Your task to perform on an android device: Open Reddit.com Image 0: 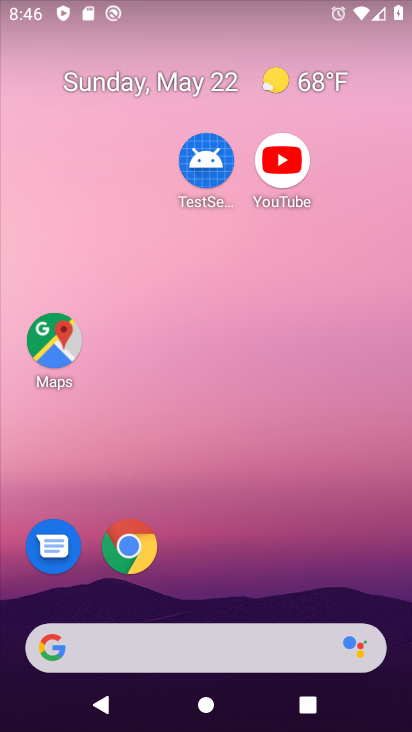
Step 0: drag from (253, 723) to (191, 165)
Your task to perform on an android device: Open Reddit.com Image 1: 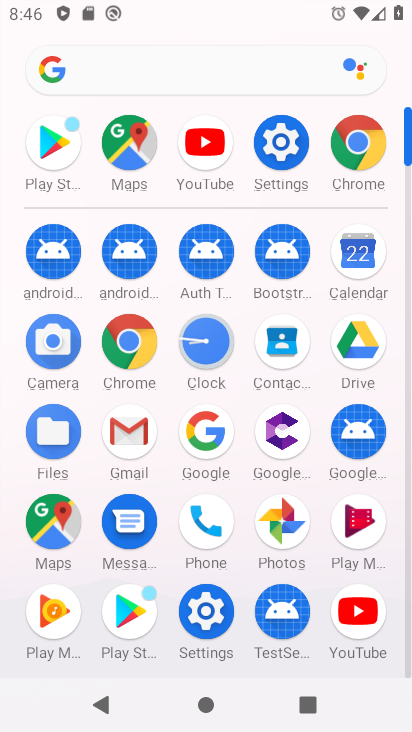
Step 1: click (352, 136)
Your task to perform on an android device: Open Reddit.com Image 2: 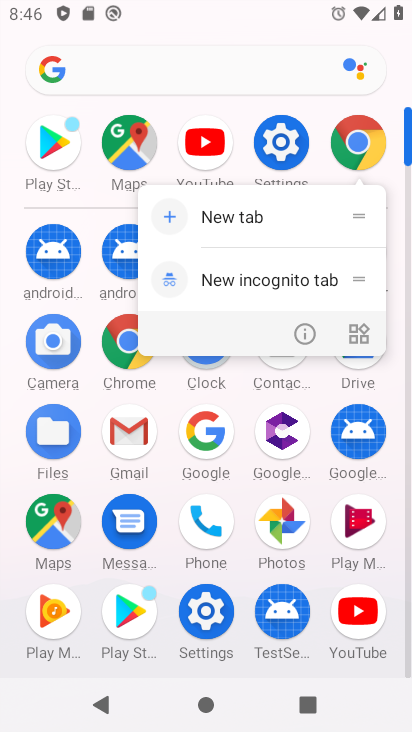
Step 2: click (350, 136)
Your task to perform on an android device: Open Reddit.com Image 3: 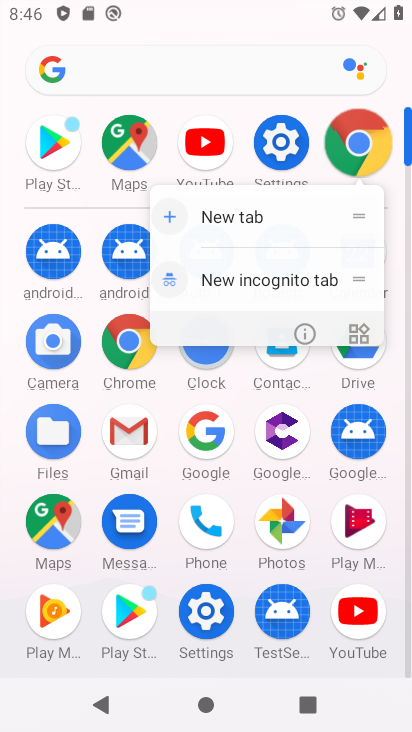
Step 3: click (359, 137)
Your task to perform on an android device: Open Reddit.com Image 4: 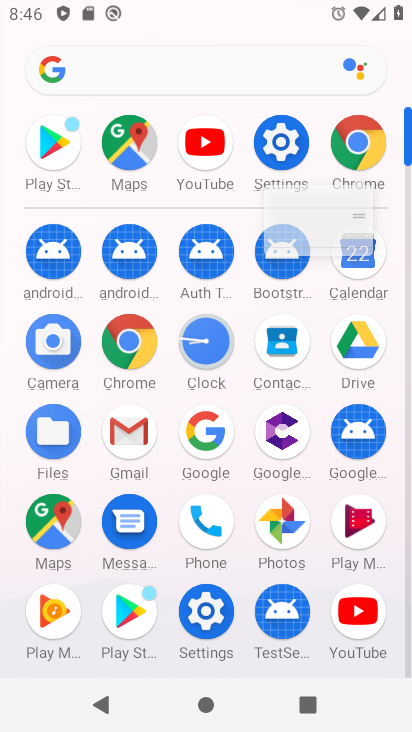
Step 4: click (359, 137)
Your task to perform on an android device: Open Reddit.com Image 5: 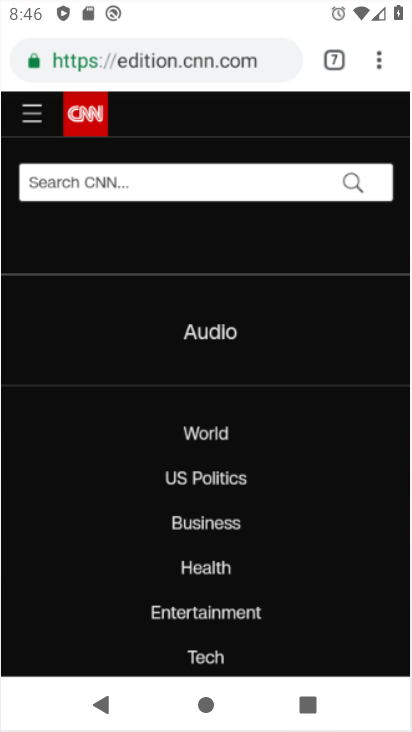
Step 5: click (362, 136)
Your task to perform on an android device: Open Reddit.com Image 6: 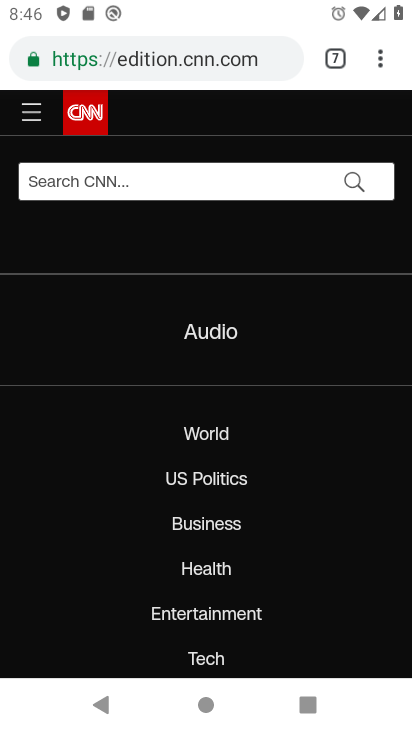
Step 6: click (378, 62)
Your task to perform on an android device: Open Reddit.com Image 7: 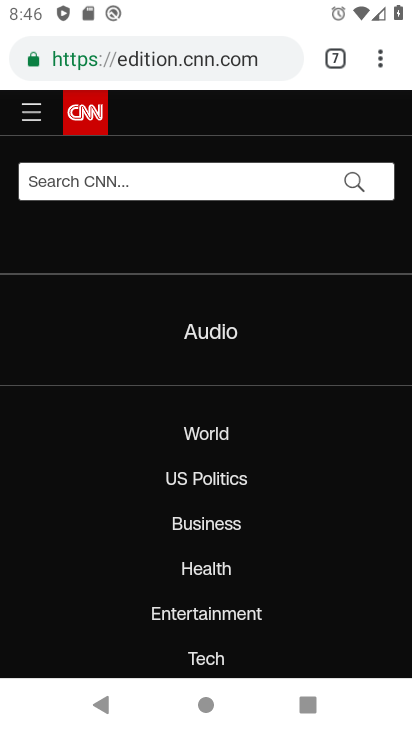
Step 7: click (376, 66)
Your task to perform on an android device: Open Reddit.com Image 8: 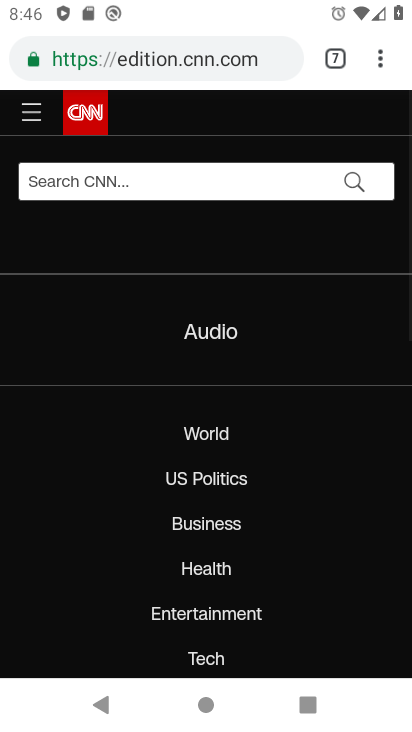
Step 8: click (384, 59)
Your task to perform on an android device: Open Reddit.com Image 9: 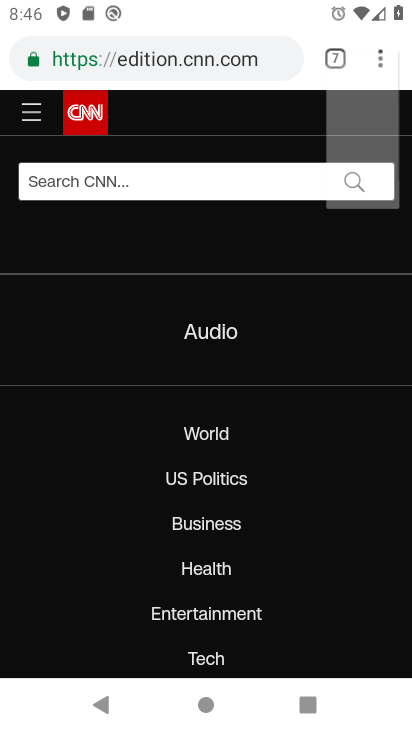
Step 9: click (384, 59)
Your task to perform on an android device: Open Reddit.com Image 10: 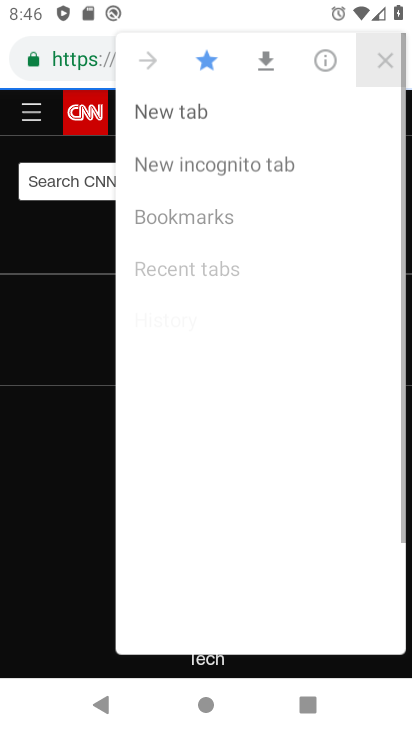
Step 10: drag from (381, 64) to (164, 111)
Your task to perform on an android device: Open Reddit.com Image 11: 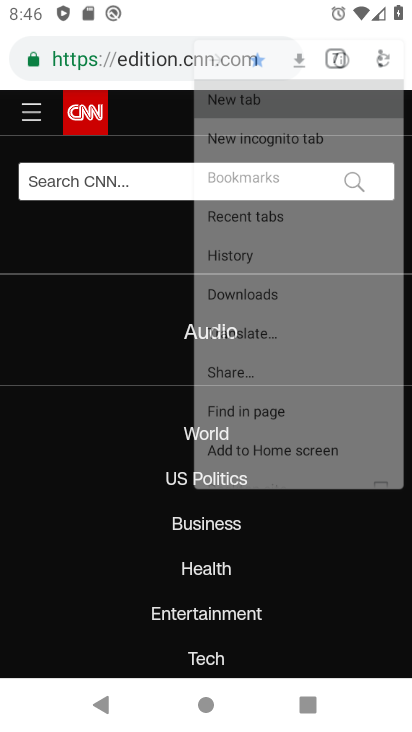
Step 11: click (161, 107)
Your task to perform on an android device: Open Reddit.com Image 12: 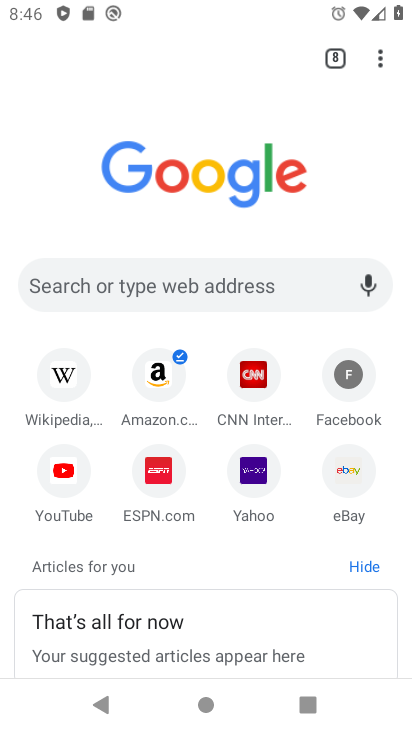
Step 12: click (94, 286)
Your task to perform on an android device: Open Reddit.com Image 13: 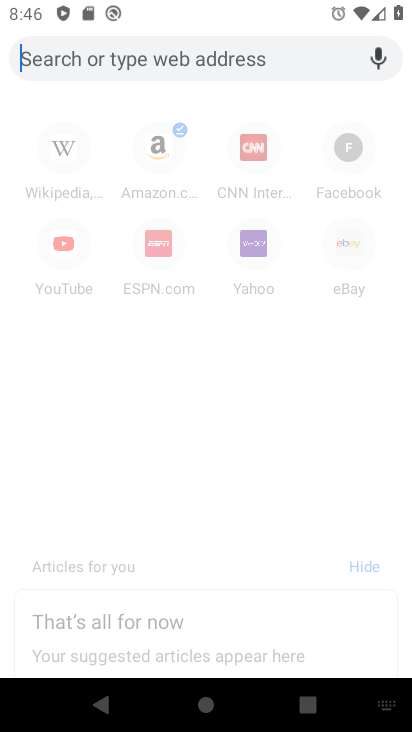
Step 13: type "reddit.com"
Your task to perform on an android device: Open Reddit.com Image 14: 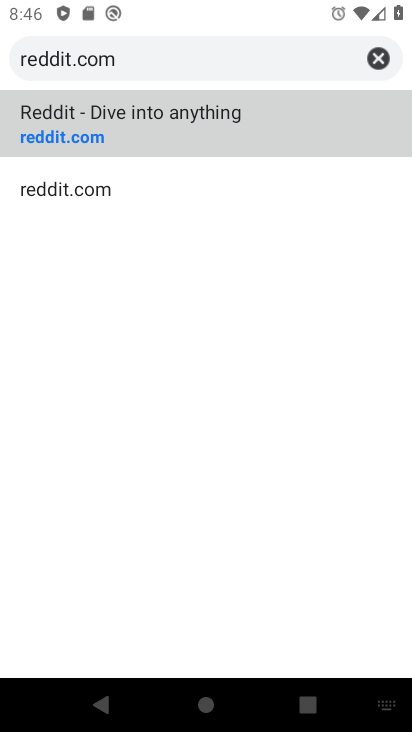
Step 14: click (64, 137)
Your task to perform on an android device: Open Reddit.com Image 15: 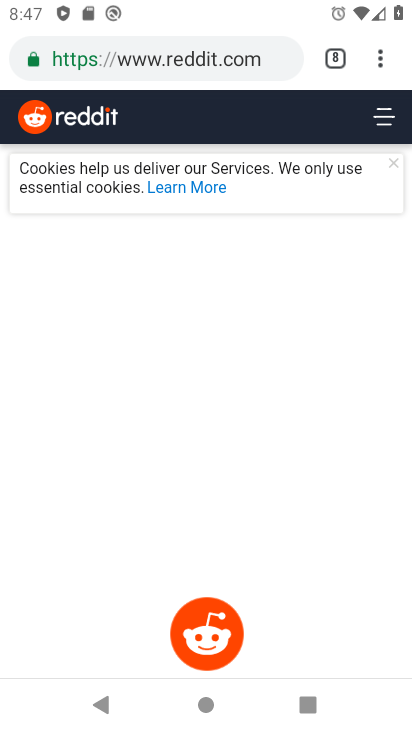
Step 15: task complete